Your task to perform on an android device: Search for seafood restaurants on Google Maps Image 0: 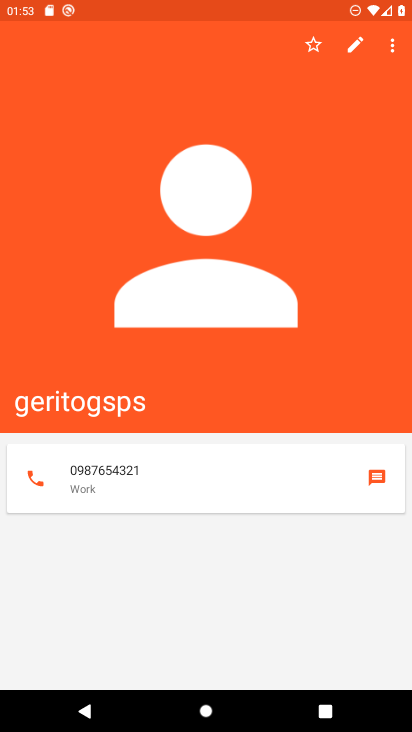
Step 0: press home button
Your task to perform on an android device: Search for seafood restaurants on Google Maps Image 1: 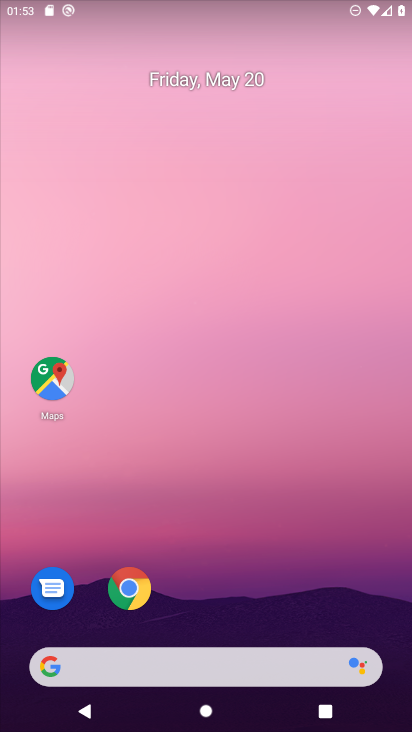
Step 1: click (51, 376)
Your task to perform on an android device: Search for seafood restaurants on Google Maps Image 2: 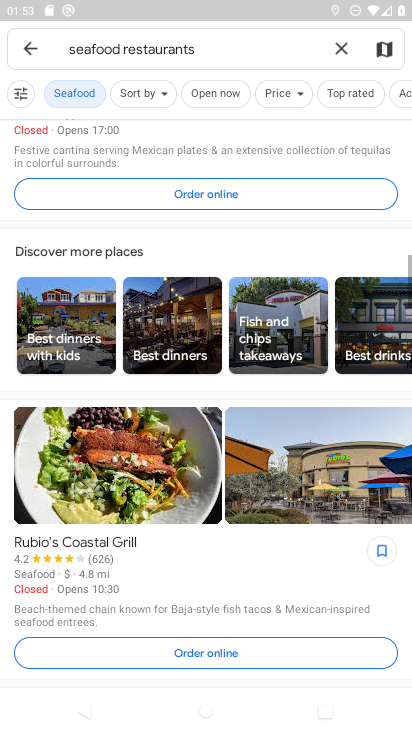
Step 2: task complete